Your task to perform on an android device: turn on sleep mode Image 0: 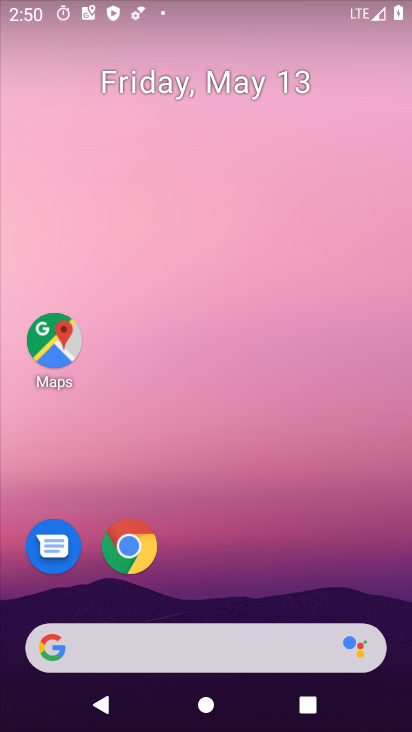
Step 0: drag from (284, 568) to (283, 222)
Your task to perform on an android device: turn on sleep mode Image 1: 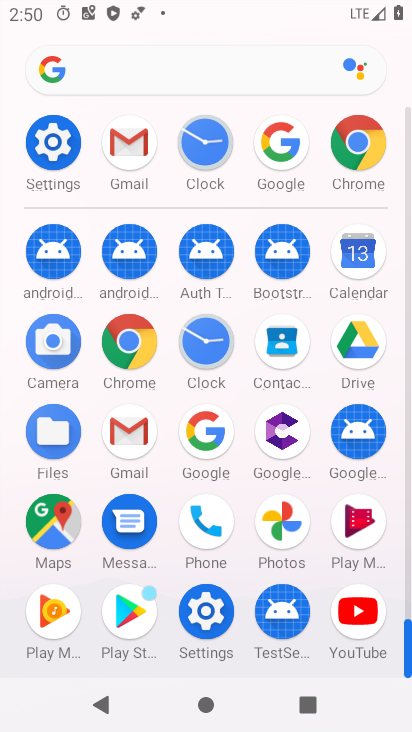
Step 1: click (61, 174)
Your task to perform on an android device: turn on sleep mode Image 2: 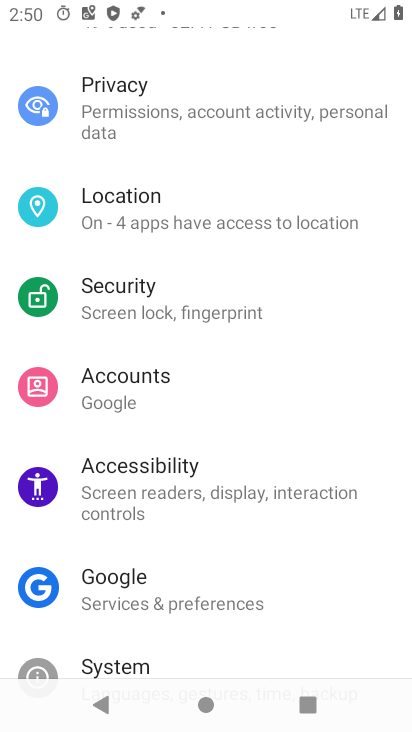
Step 2: drag from (178, 283) to (136, 708)
Your task to perform on an android device: turn on sleep mode Image 3: 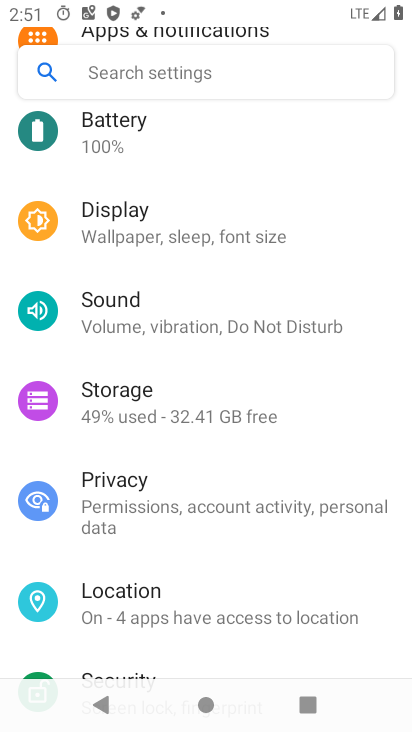
Step 3: click (167, 235)
Your task to perform on an android device: turn on sleep mode Image 4: 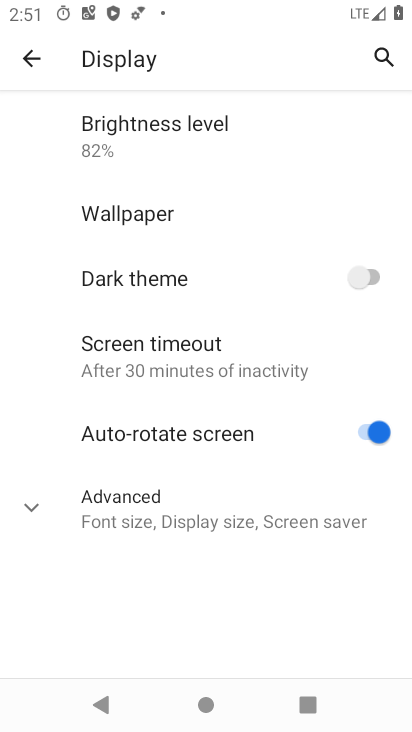
Step 4: click (149, 524)
Your task to perform on an android device: turn on sleep mode Image 5: 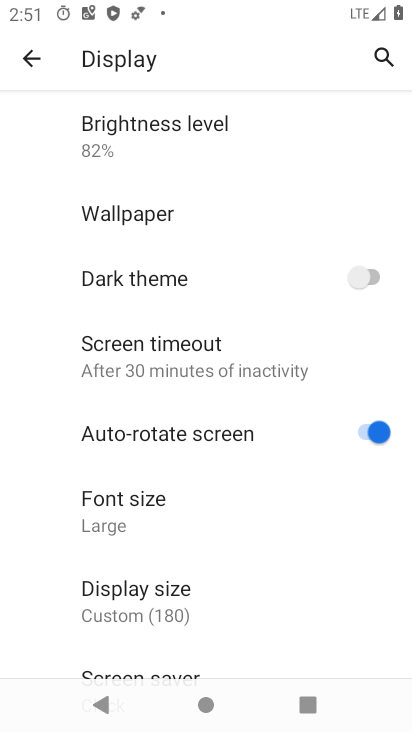
Step 5: task complete